Your task to perform on an android device: Go to privacy settings Image 0: 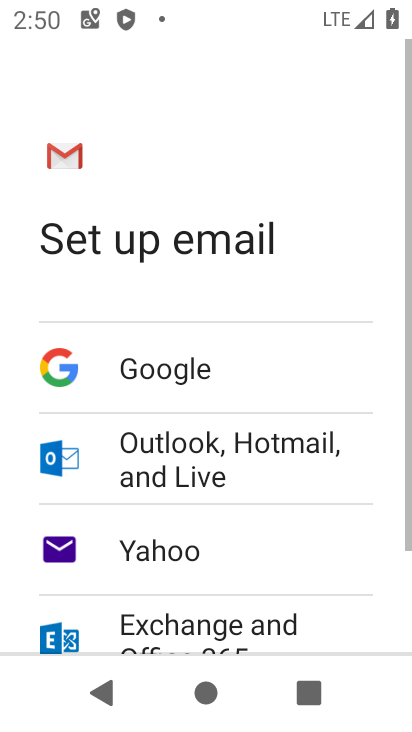
Step 0: press home button
Your task to perform on an android device: Go to privacy settings Image 1: 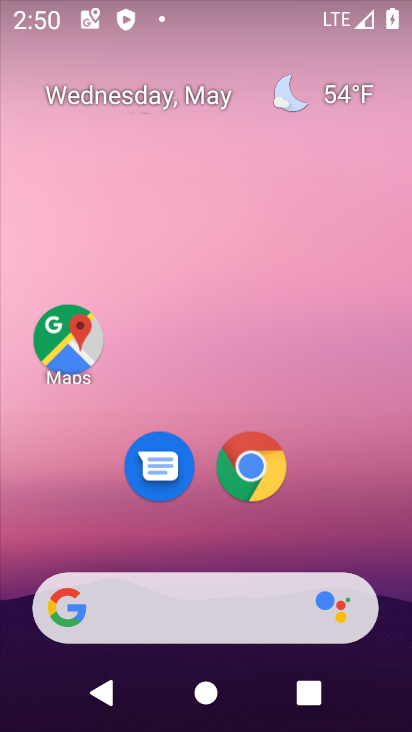
Step 1: drag from (313, 468) to (218, 81)
Your task to perform on an android device: Go to privacy settings Image 2: 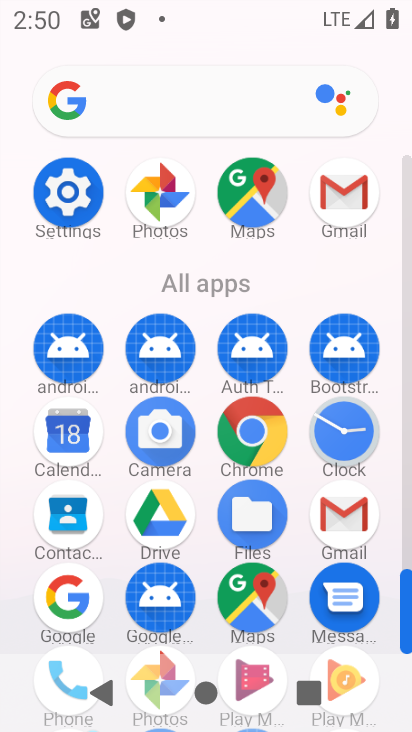
Step 2: click (92, 214)
Your task to perform on an android device: Go to privacy settings Image 3: 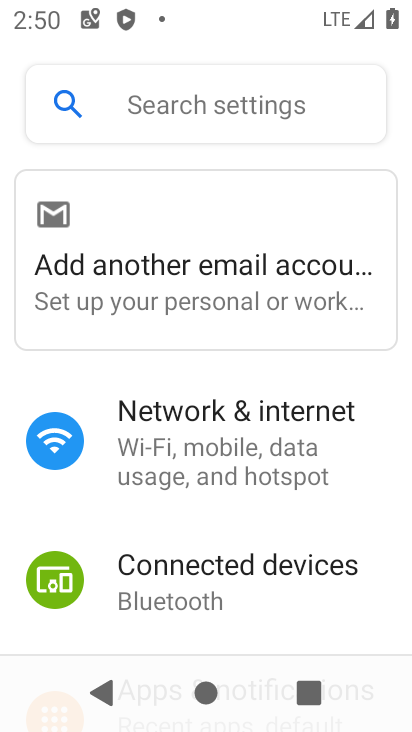
Step 3: drag from (218, 616) to (189, 121)
Your task to perform on an android device: Go to privacy settings Image 4: 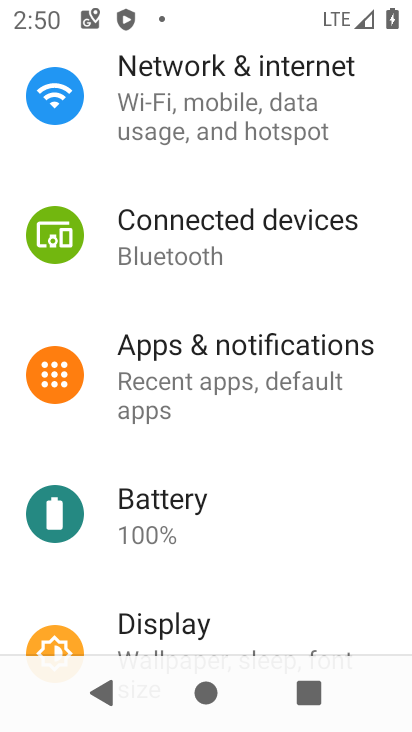
Step 4: drag from (304, 574) to (250, 80)
Your task to perform on an android device: Go to privacy settings Image 5: 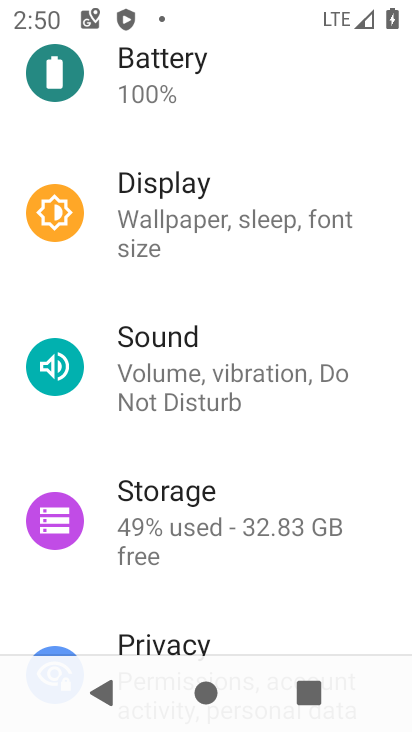
Step 5: drag from (294, 618) to (273, 207)
Your task to perform on an android device: Go to privacy settings Image 6: 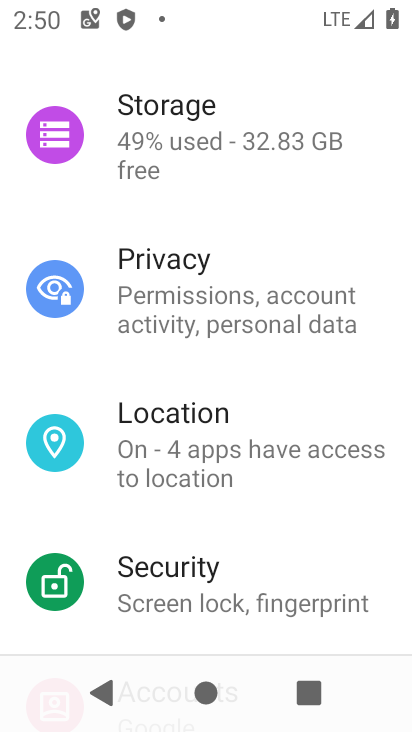
Step 6: click (284, 298)
Your task to perform on an android device: Go to privacy settings Image 7: 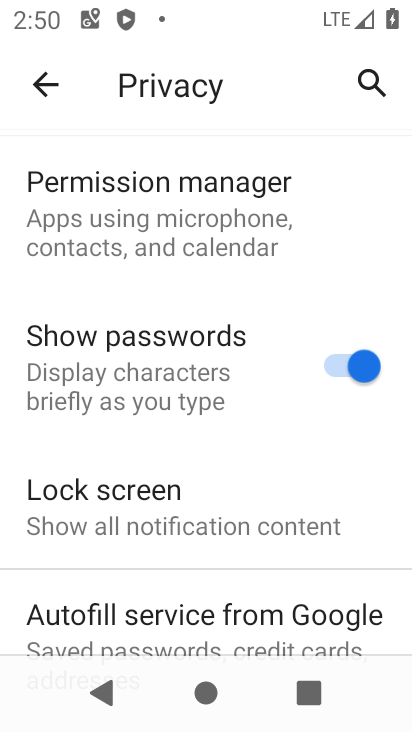
Step 7: task complete